Your task to perform on an android device: Open Youtube and go to "Your channel" Image 0: 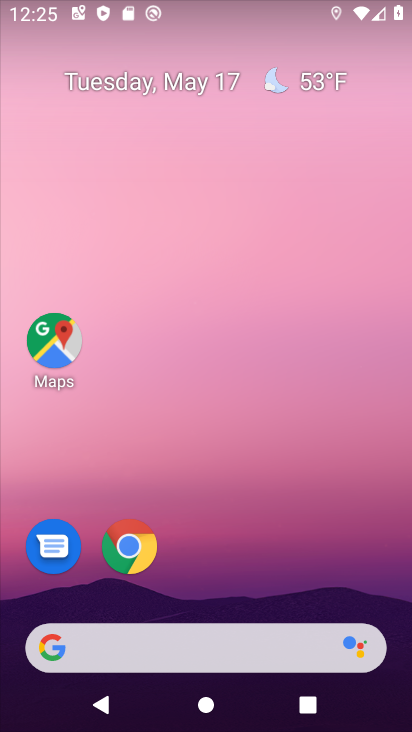
Step 0: drag from (210, 574) to (203, 96)
Your task to perform on an android device: Open Youtube and go to "Your channel" Image 1: 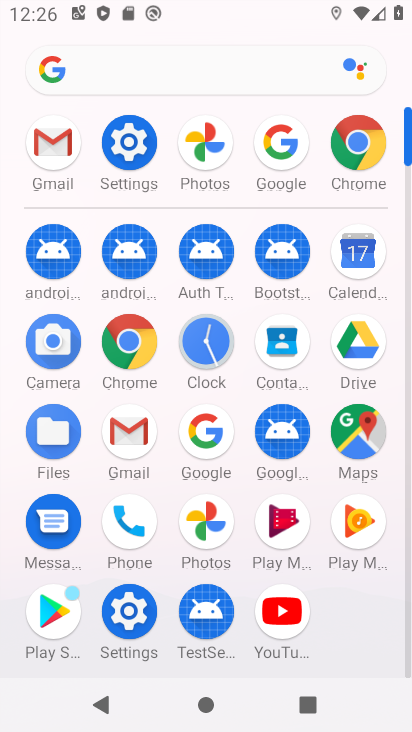
Step 1: click (283, 603)
Your task to perform on an android device: Open Youtube and go to "Your channel" Image 2: 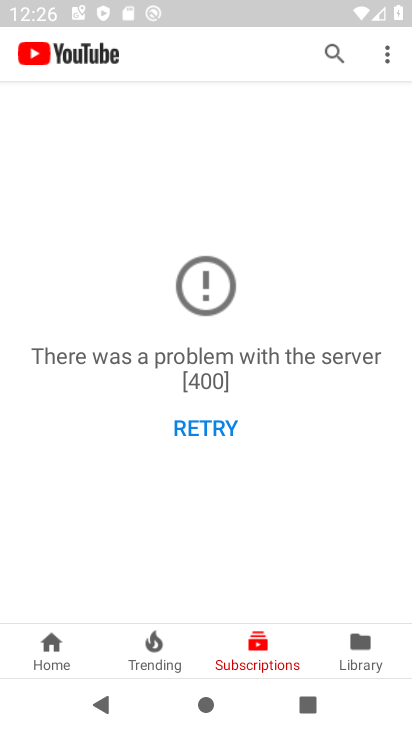
Step 2: task complete